Your task to perform on an android device: Open maps Image 0: 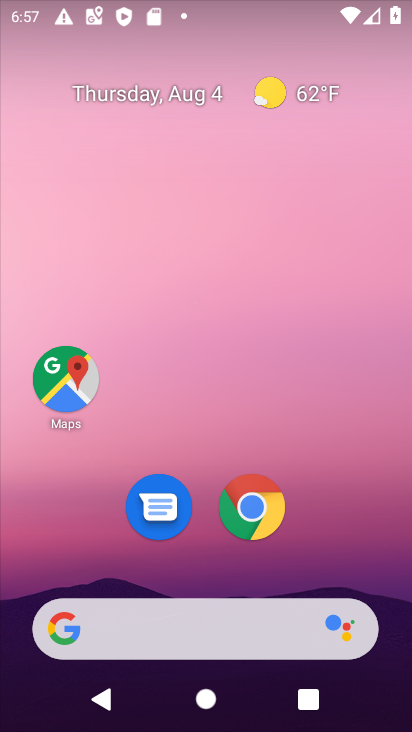
Step 0: drag from (374, 607) to (238, 57)
Your task to perform on an android device: Open maps Image 1: 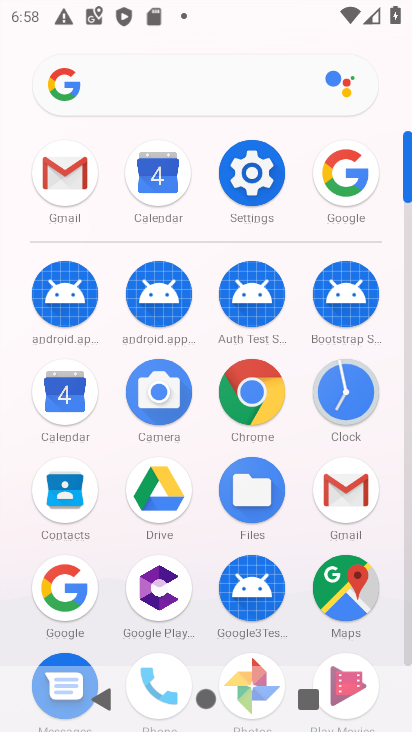
Step 1: click (349, 600)
Your task to perform on an android device: Open maps Image 2: 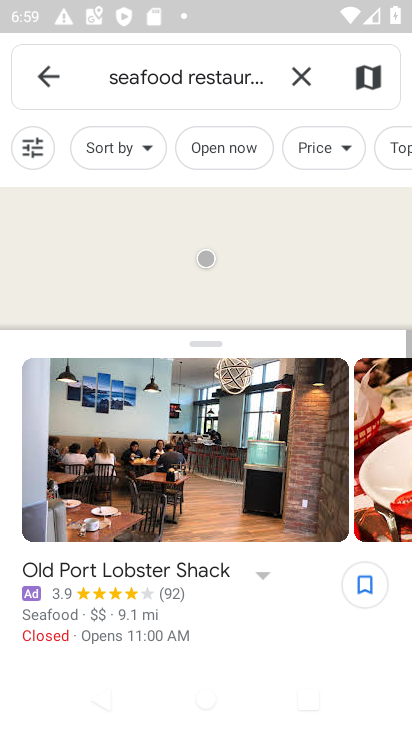
Step 2: click (298, 73)
Your task to perform on an android device: Open maps Image 3: 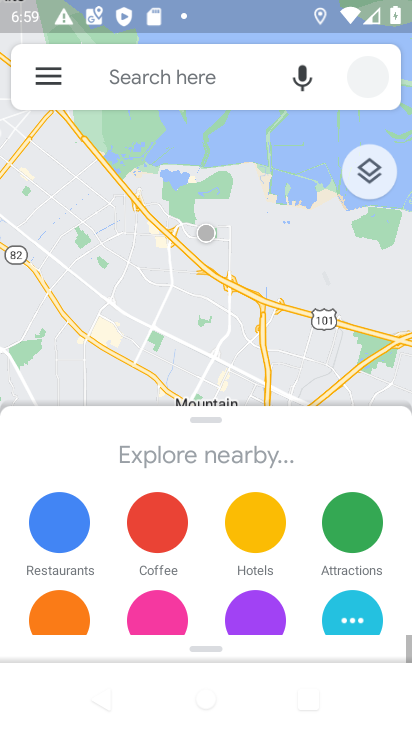
Step 3: task complete